Your task to perform on an android device: toggle translation in the chrome app Image 0: 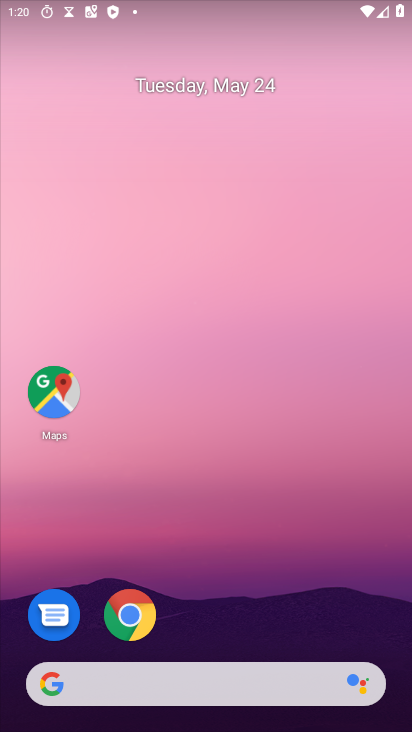
Step 0: press home button
Your task to perform on an android device: toggle translation in the chrome app Image 1: 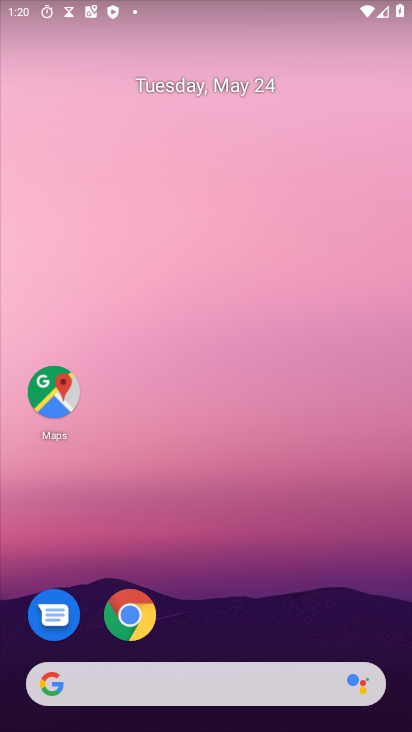
Step 1: click (130, 609)
Your task to perform on an android device: toggle translation in the chrome app Image 2: 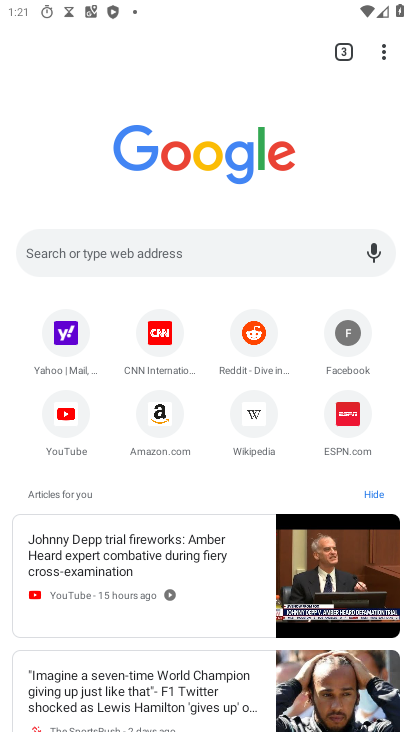
Step 2: click (381, 44)
Your task to perform on an android device: toggle translation in the chrome app Image 3: 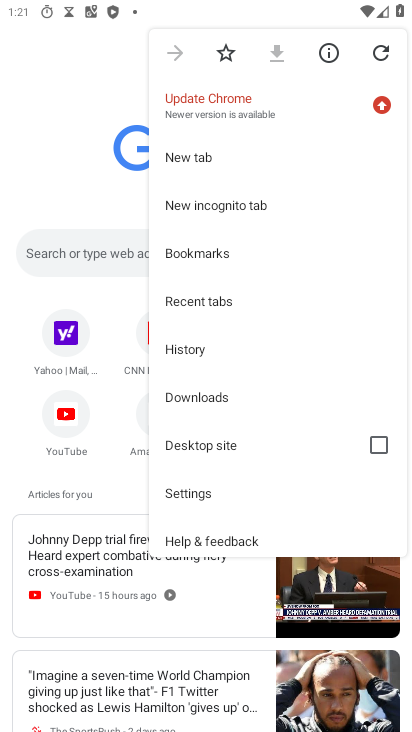
Step 3: click (220, 489)
Your task to perform on an android device: toggle translation in the chrome app Image 4: 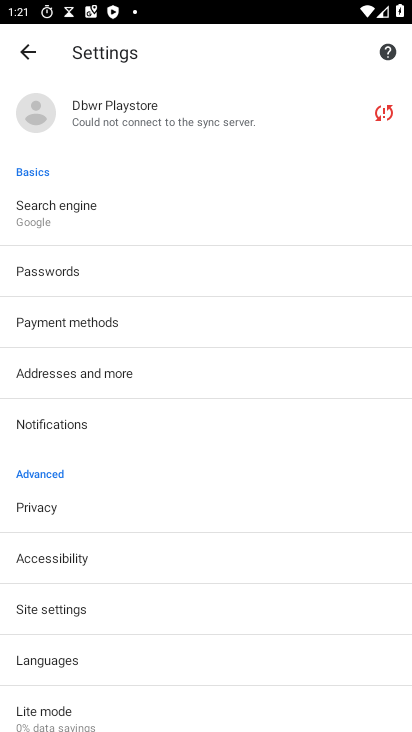
Step 4: click (93, 664)
Your task to perform on an android device: toggle translation in the chrome app Image 5: 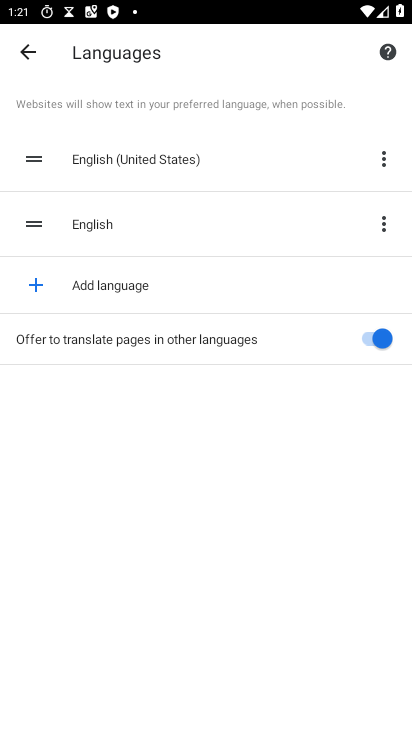
Step 5: task complete